Your task to perform on an android device: Go to CNN.com Image 0: 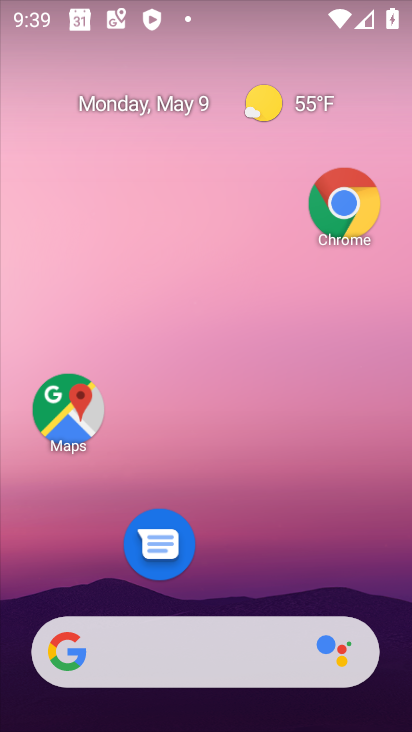
Step 0: click (327, 221)
Your task to perform on an android device: Go to CNN.com Image 1: 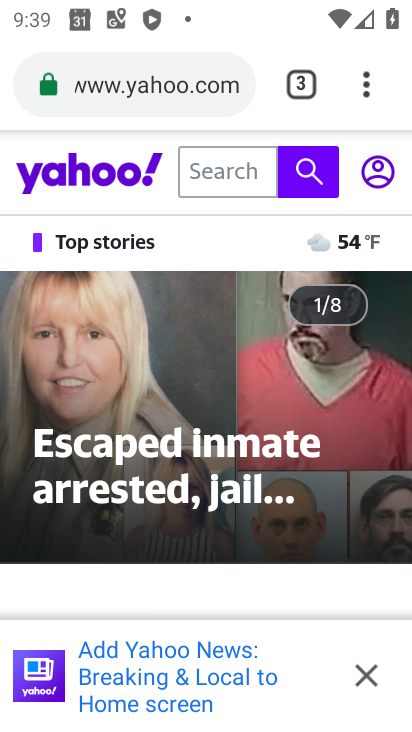
Step 1: click (294, 85)
Your task to perform on an android device: Go to CNN.com Image 2: 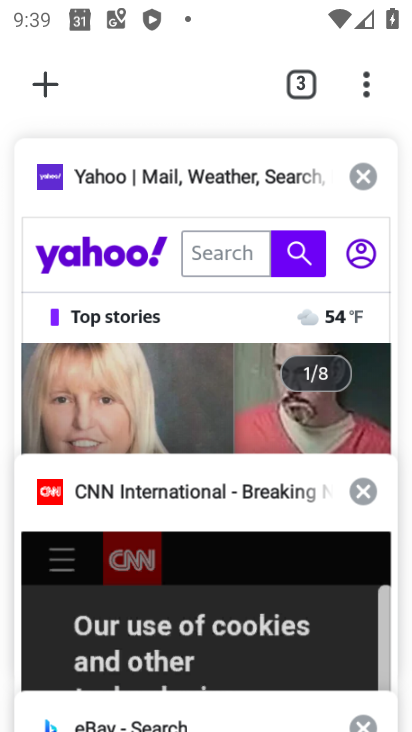
Step 2: click (110, 508)
Your task to perform on an android device: Go to CNN.com Image 3: 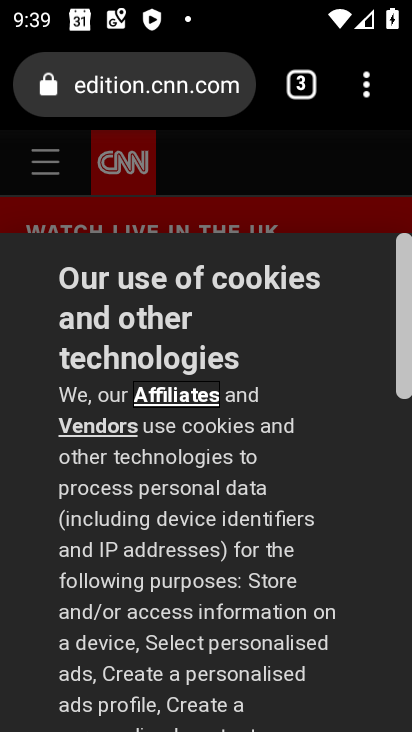
Step 3: task complete